Your task to perform on an android device: Go to Android settings Image 0: 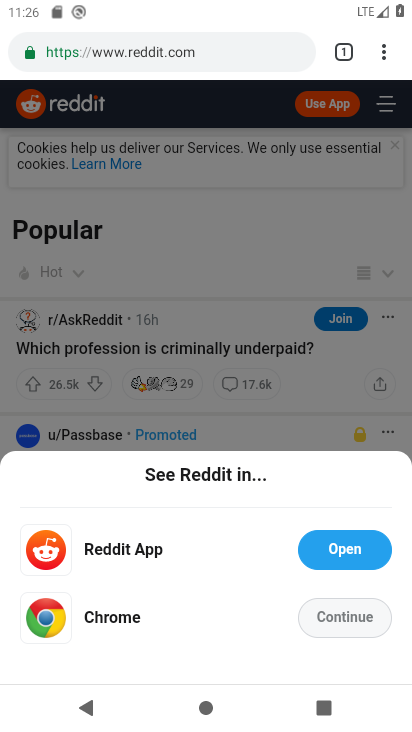
Step 0: press home button
Your task to perform on an android device: Go to Android settings Image 1: 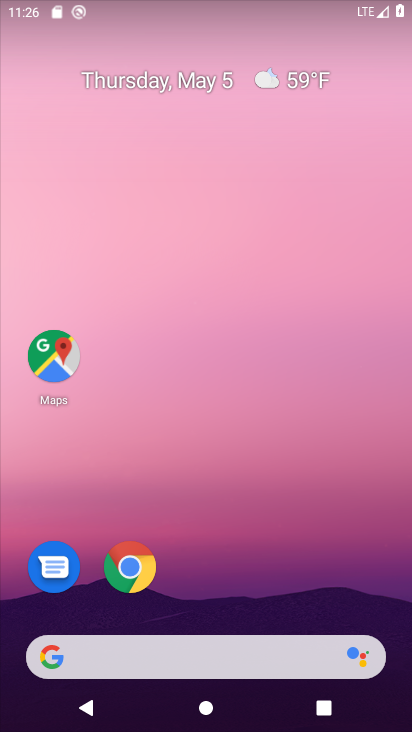
Step 1: drag from (316, 580) to (356, 3)
Your task to perform on an android device: Go to Android settings Image 2: 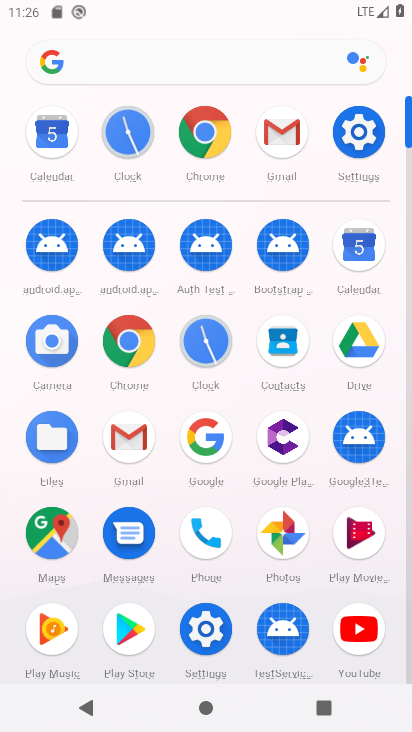
Step 2: click (360, 138)
Your task to perform on an android device: Go to Android settings Image 3: 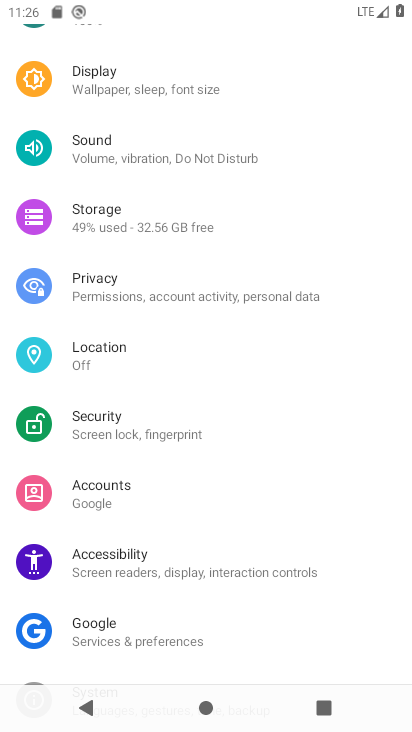
Step 3: task complete